Your task to perform on an android device: change the clock style Image 0: 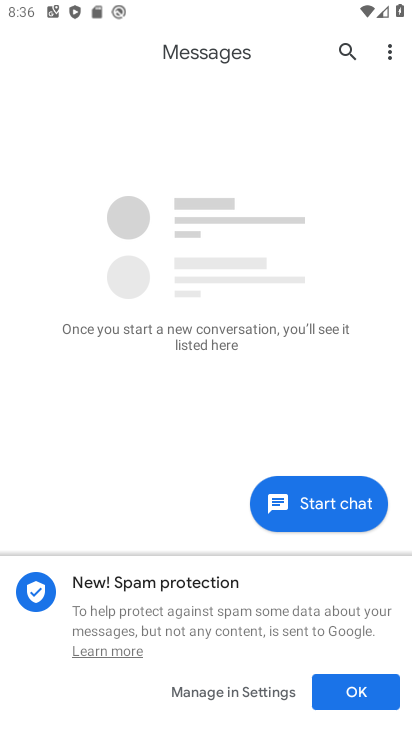
Step 0: press home button
Your task to perform on an android device: change the clock style Image 1: 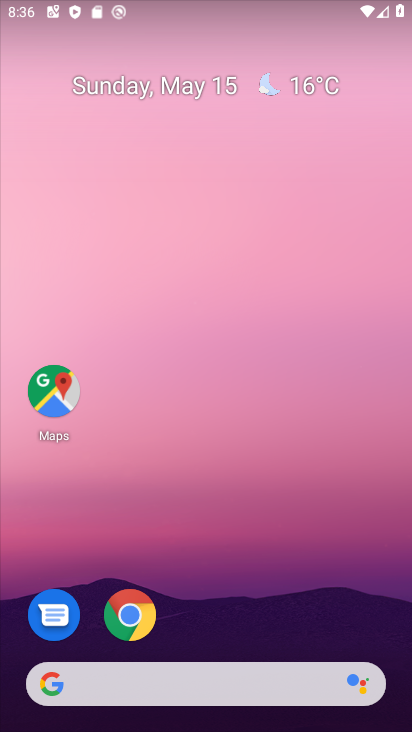
Step 1: drag from (320, 597) to (297, 42)
Your task to perform on an android device: change the clock style Image 2: 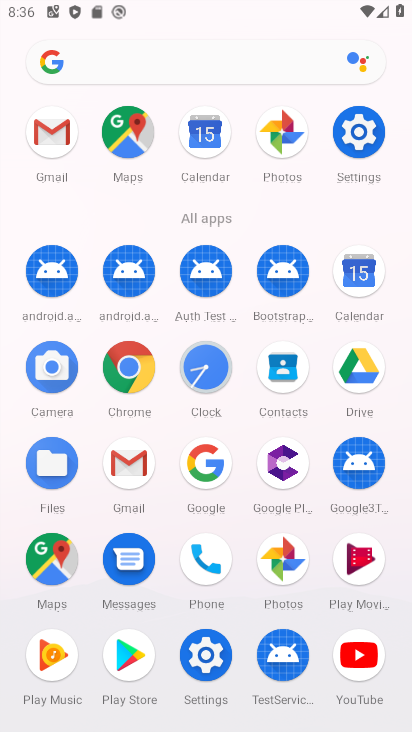
Step 2: click (211, 373)
Your task to perform on an android device: change the clock style Image 3: 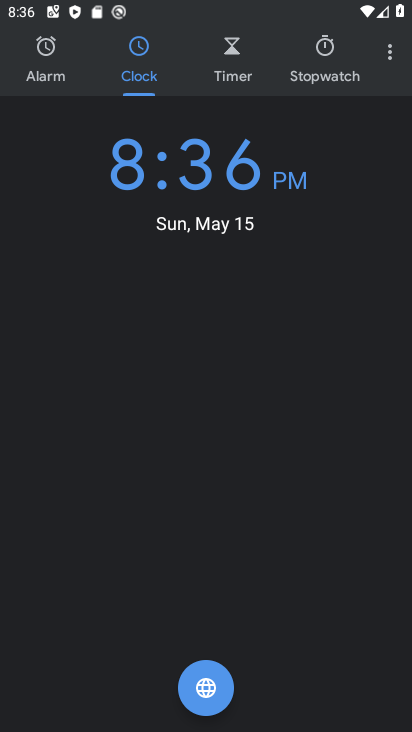
Step 3: click (387, 65)
Your task to perform on an android device: change the clock style Image 4: 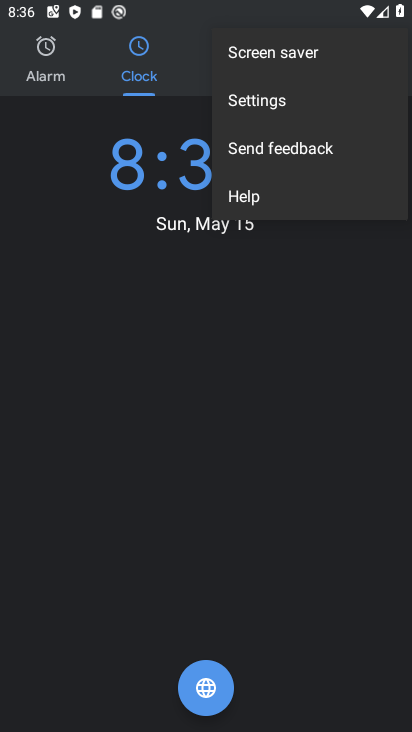
Step 4: click (293, 105)
Your task to perform on an android device: change the clock style Image 5: 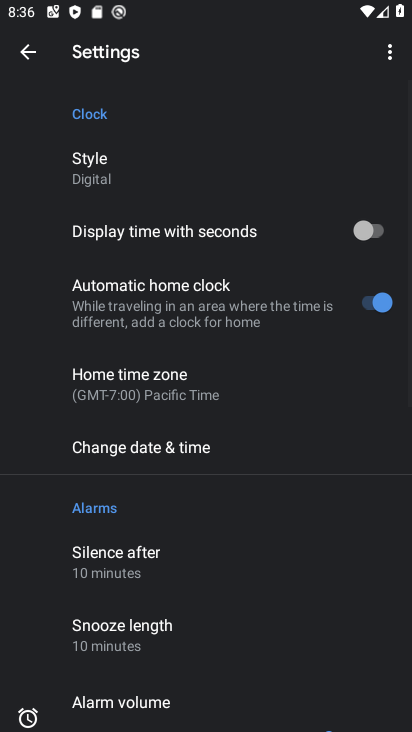
Step 5: click (248, 167)
Your task to perform on an android device: change the clock style Image 6: 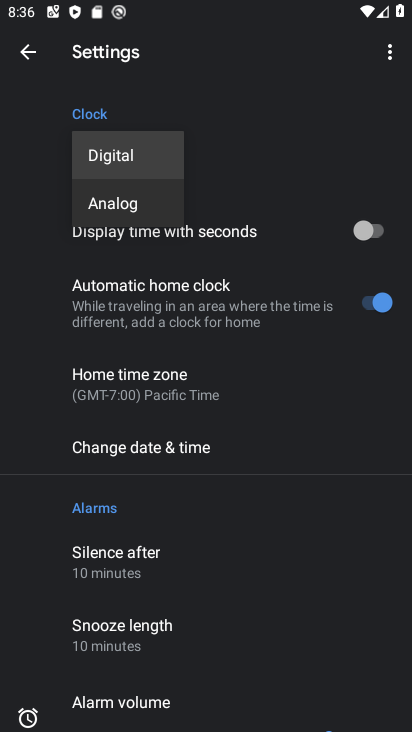
Step 6: click (117, 206)
Your task to perform on an android device: change the clock style Image 7: 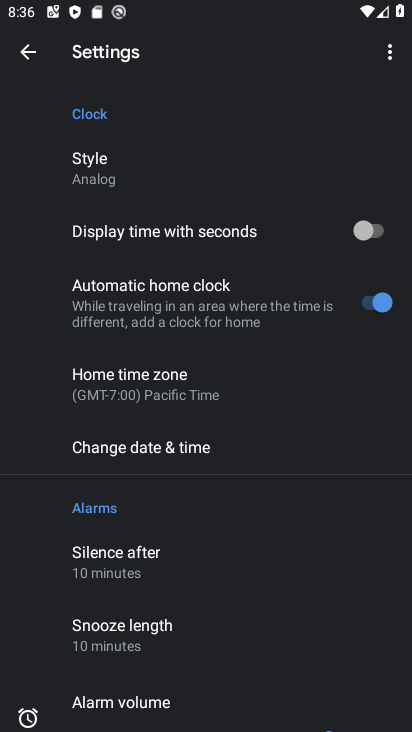
Step 7: task complete